Your task to perform on an android device: Go to sound settings Image 0: 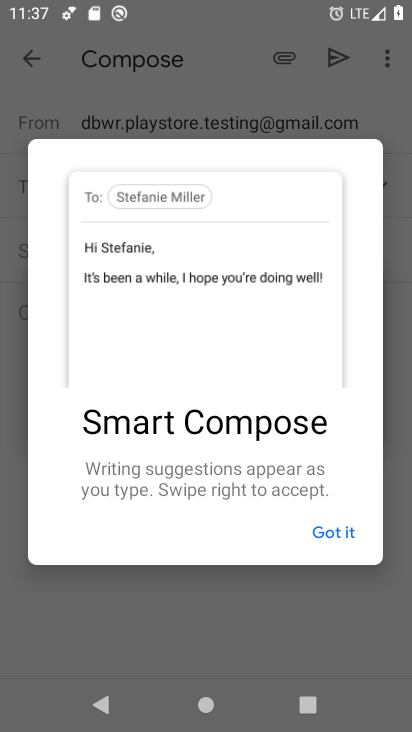
Step 0: press home button
Your task to perform on an android device: Go to sound settings Image 1: 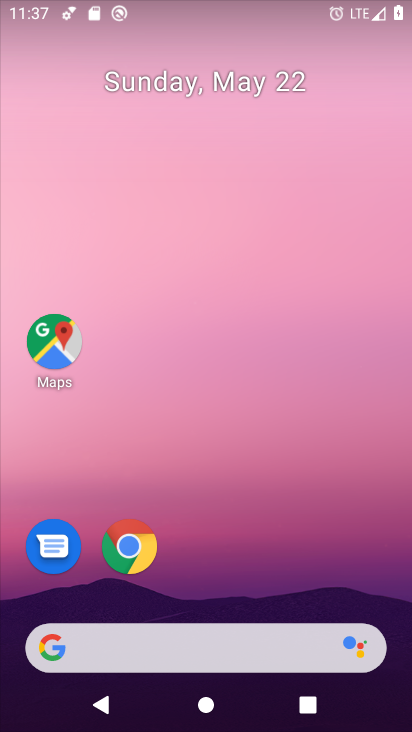
Step 1: drag from (285, 554) to (331, 205)
Your task to perform on an android device: Go to sound settings Image 2: 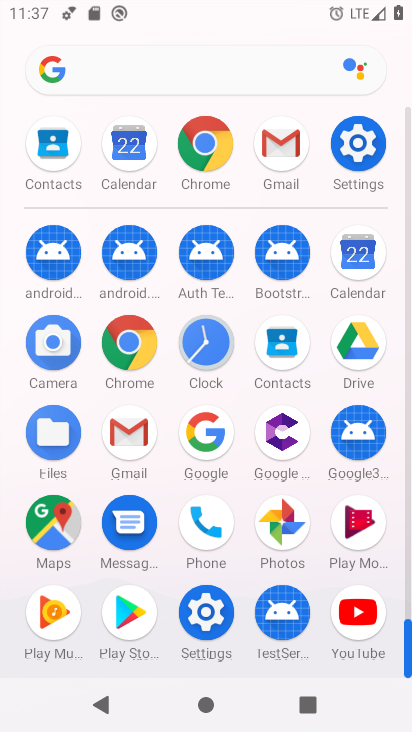
Step 2: click (295, 355)
Your task to perform on an android device: Go to sound settings Image 3: 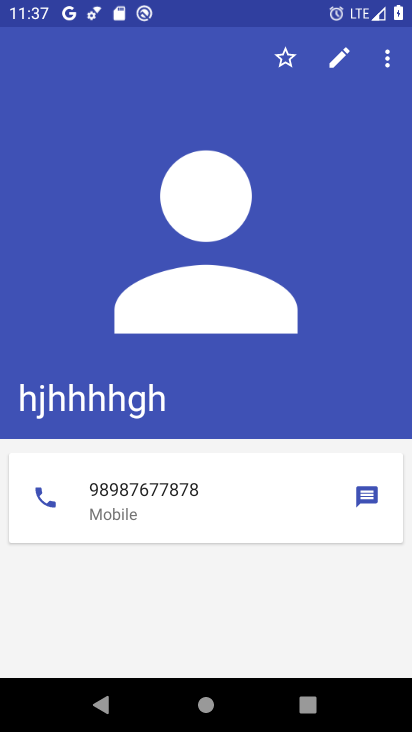
Step 3: press home button
Your task to perform on an android device: Go to sound settings Image 4: 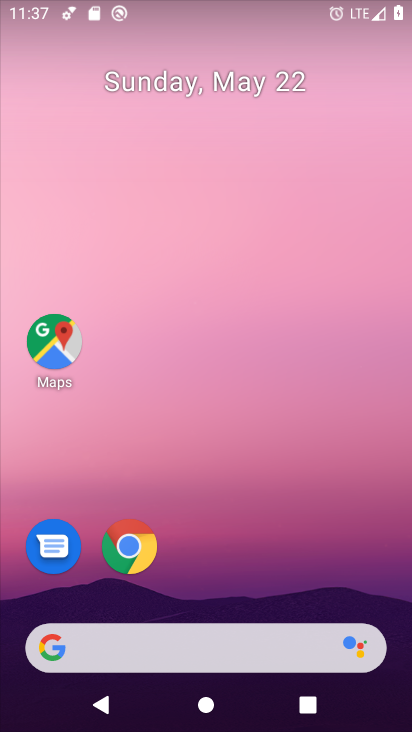
Step 4: drag from (263, 574) to (294, 214)
Your task to perform on an android device: Go to sound settings Image 5: 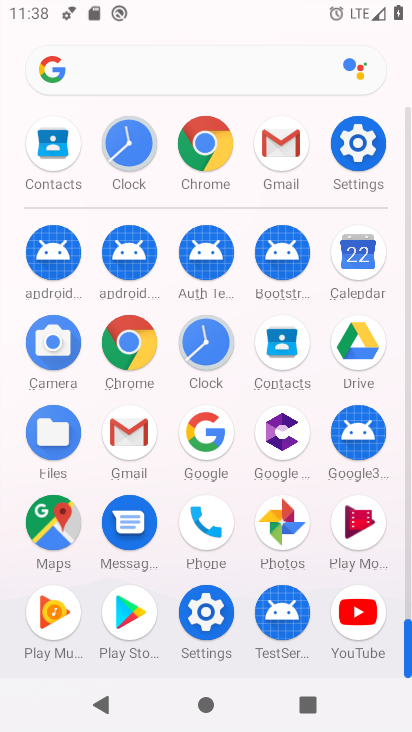
Step 5: click (357, 157)
Your task to perform on an android device: Go to sound settings Image 6: 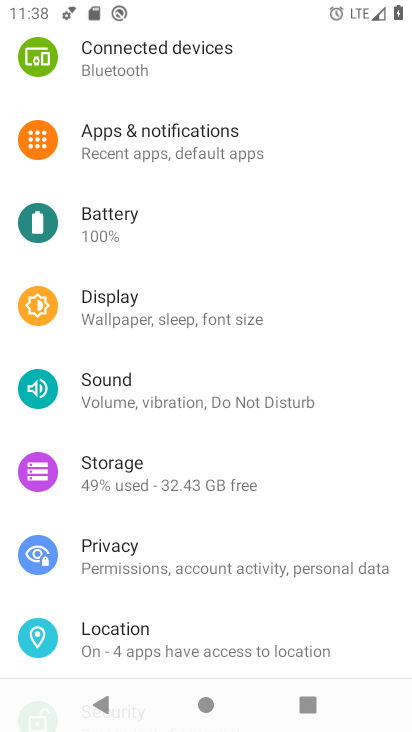
Step 6: click (180, 396)
Your task to perform on an android device: Go to sound settings Image 7: 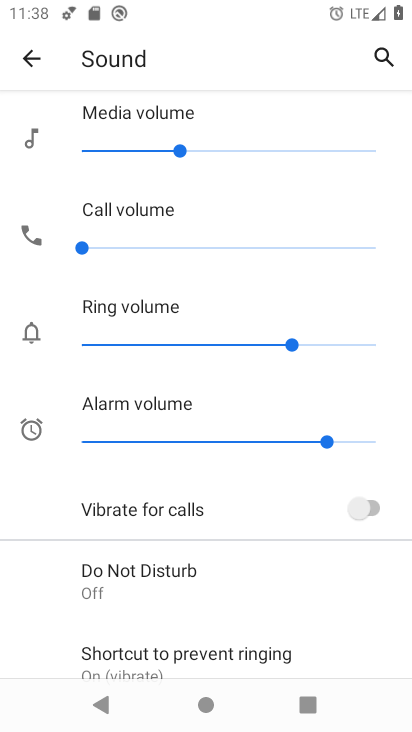
Step 7: task complete